Your task to perform on an android device: turn on translation in the chrome app Image 0: 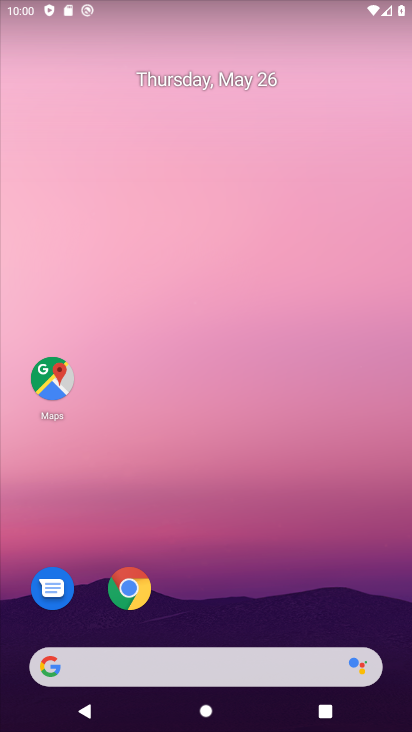
Step 0: click (127, 581)
Your task to perform on an android device: turn on translation in the chrome app Image 1: 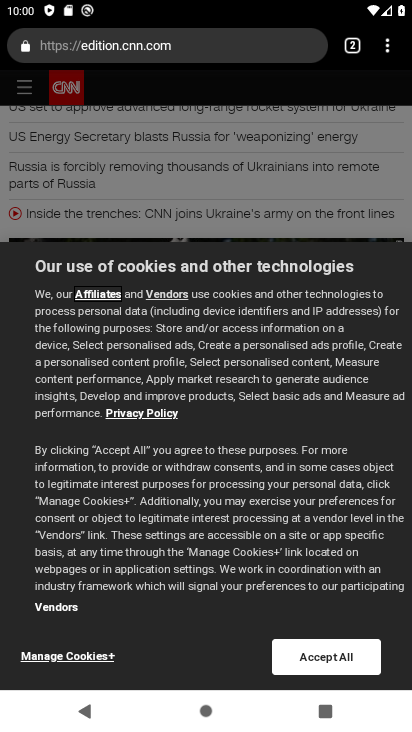
Step 1: click (390, 50)
Your task to perform on an android device: turn on translation in the chrome app Image 2: 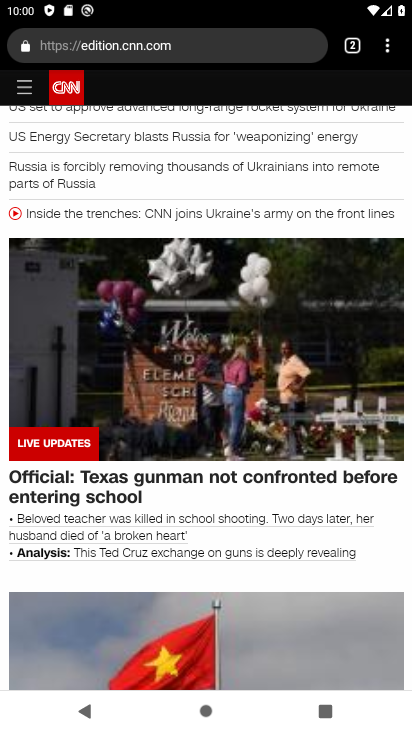
Step 2: click (387, 47)
Your task to perform on an android device: turn on translation in the chrome app Image 3: 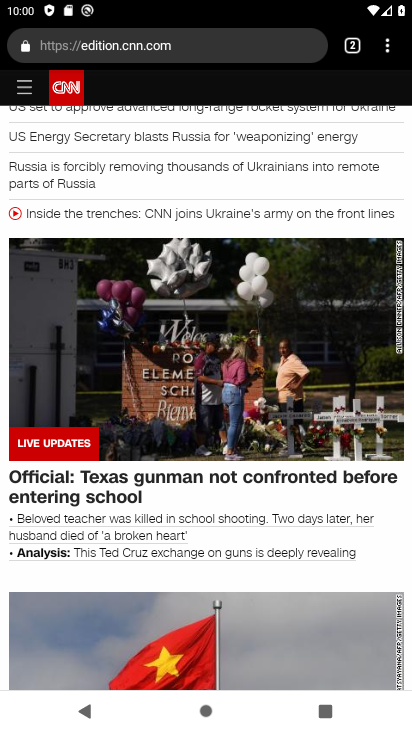
Step 3: click (387, 47)
Your task to perform on an android device: turn on translation in the chrome app Image 4: 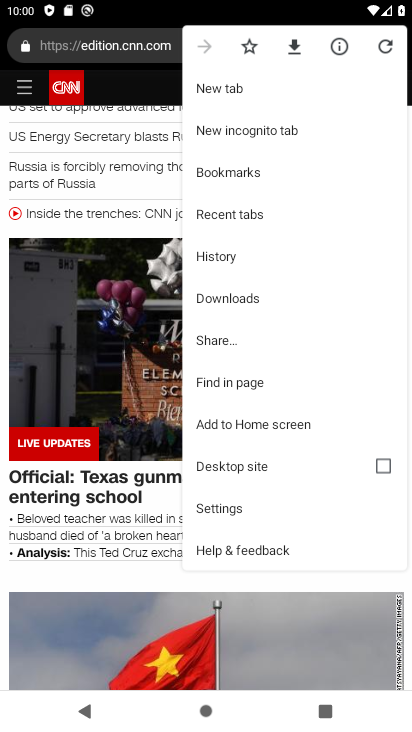
Step 4: click (207, 501)
Your task to perform on an android device: turn on translation in the chrome app Image 5: 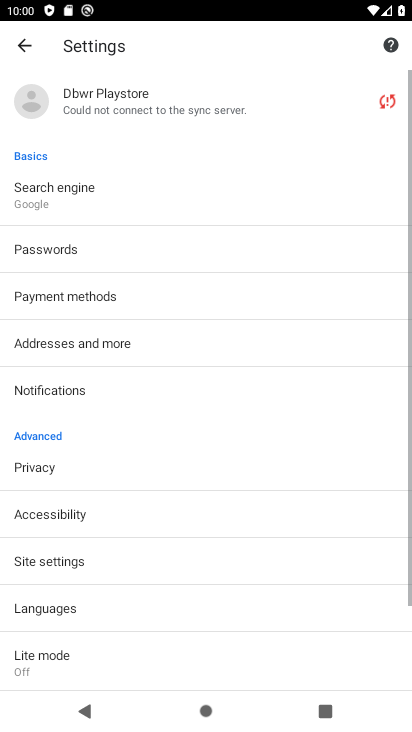
Step 5: drag from (145, 644) to (122, 219)
Your task to perform on an android device: turn on translation in the chrome app Image 6: 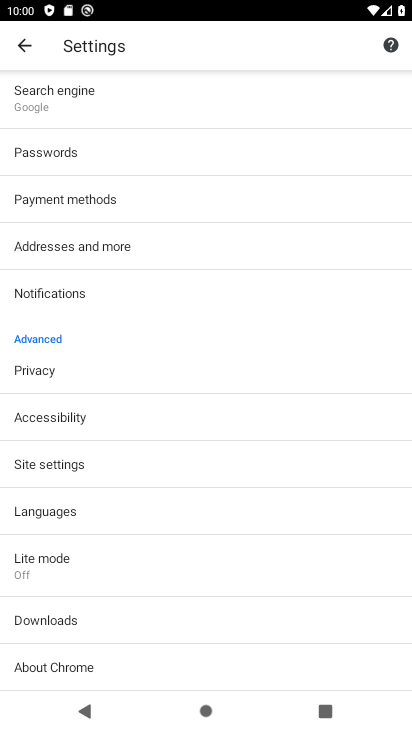
Step 6: click (61, 517)
Your task to perform on an android device: turn on translation in the chrome app Image 7: 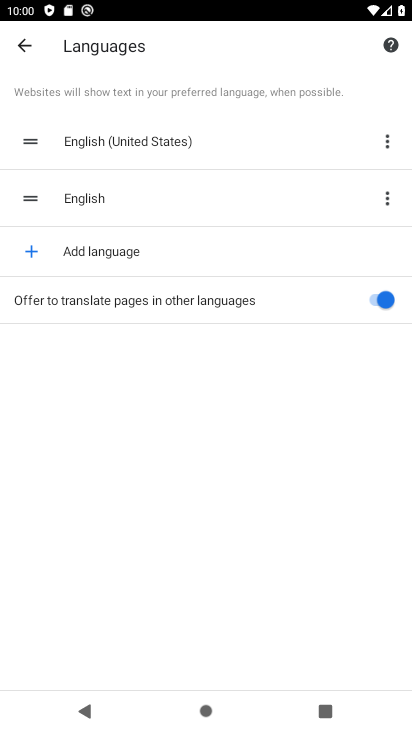
Step 7: task complete